Your task to perform on an android device: Go to Amazon Image 0: 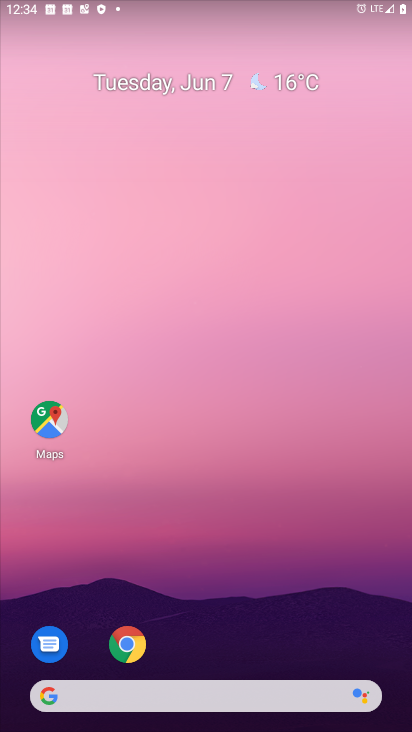
Step 0: click (131, 638)
Your task to perform on an android device: Go to Amazon Image 1: 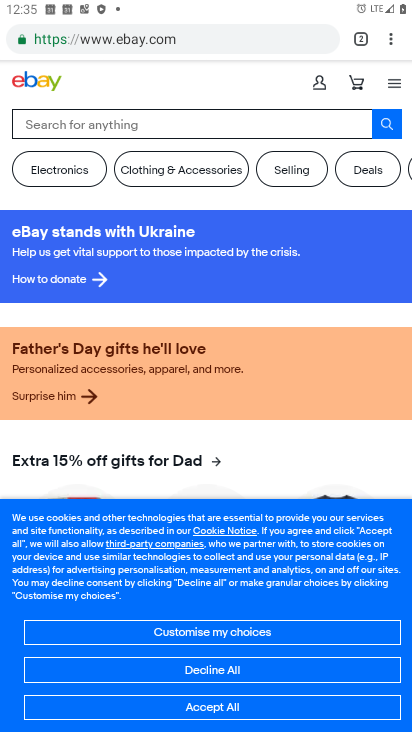
Step 1: click (357, 44)
Your task to perform on an android device: Go to Amazon Image 2: 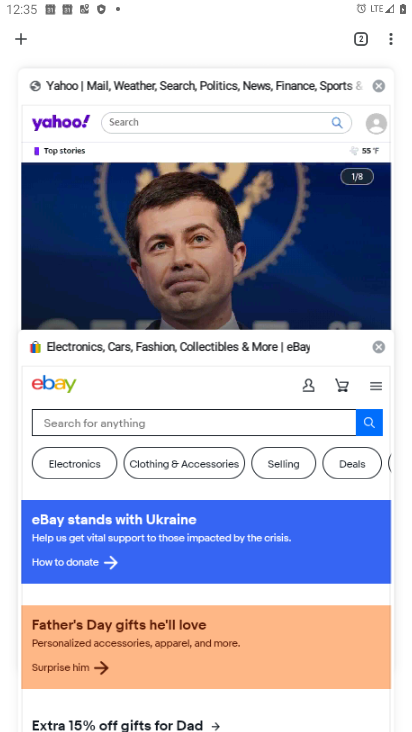
Step 2: click (375, 84)
Your task to perform on an android device: Go to Amazon Image 3: 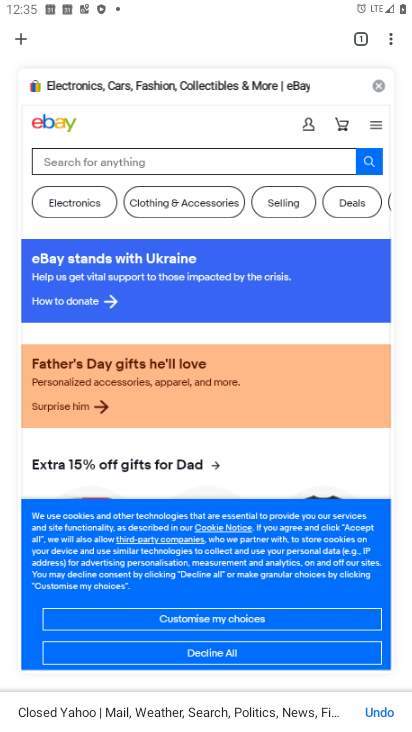
Step 3: click (381, 87)
Your task to perform on an android device: Go to Amazon Image 4: 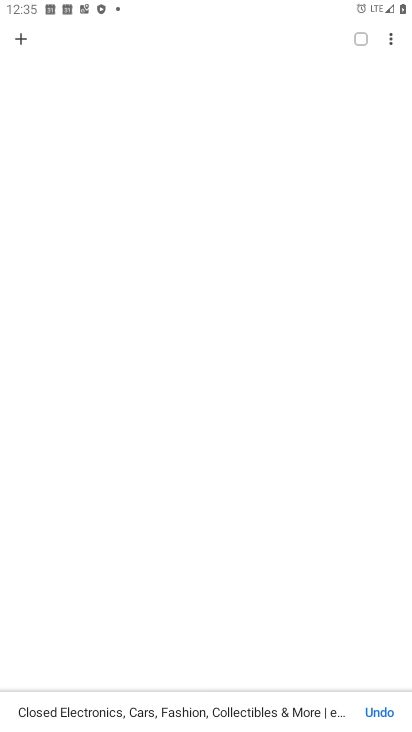
Step 4: click (14, 41)
Your task to perform on an android device: Go to Amazon Image 5: 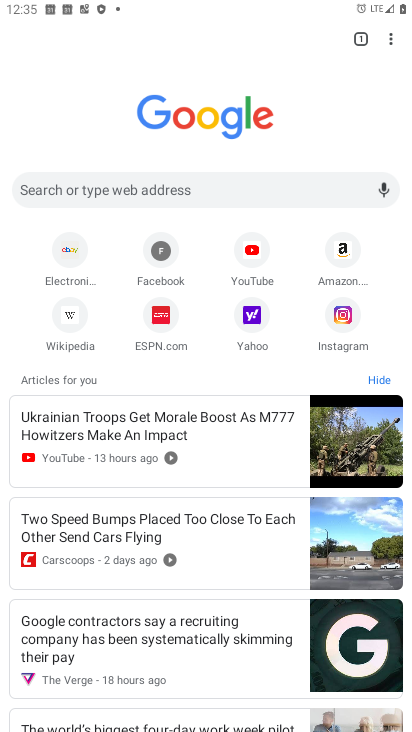
Step 5: click (334, 256)
Your task to perform on an android device: Go to Amazon Image 6: 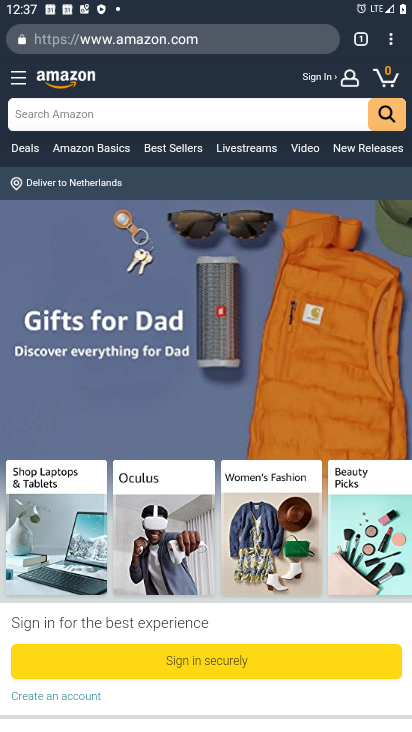
Step 6: task complete